Your task to perform on an android device: allow cookies in the chrome app Image 0: 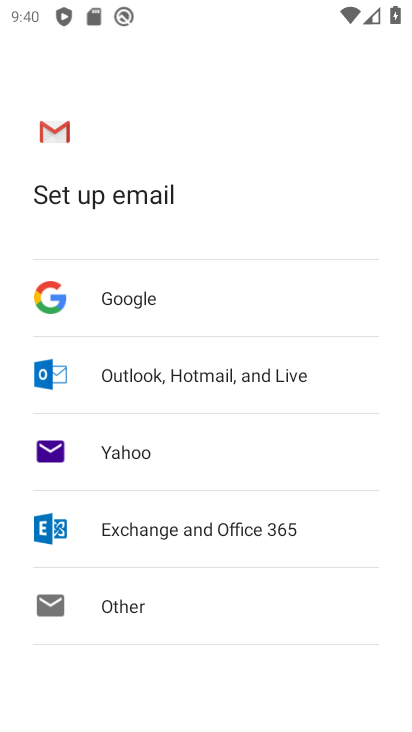
Step 0: press home button
Your task to perform on an android device: allow cookies in the chrome app Image 1: 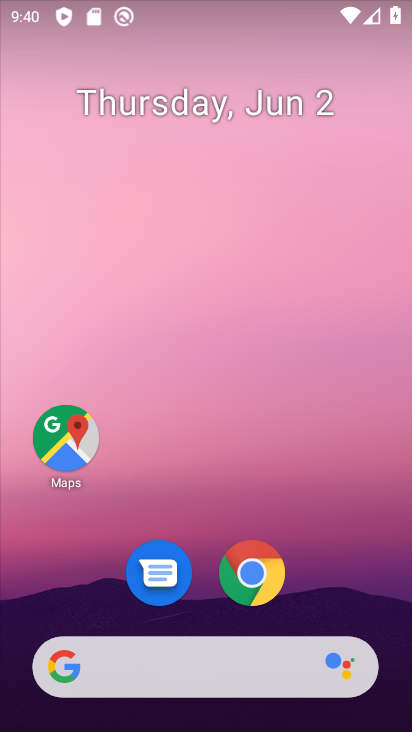
Step 1: click (252, 568)
Your task to perform on an android device: allow cookies in the chrome app Image 2: 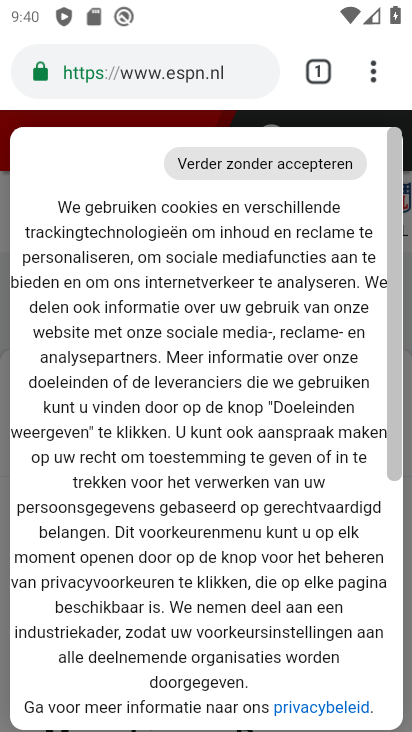
Step 2: drag from (373, 66) to (229, 574)
Your task to perform on an android device: allow cookies in the chrome app Image 3: 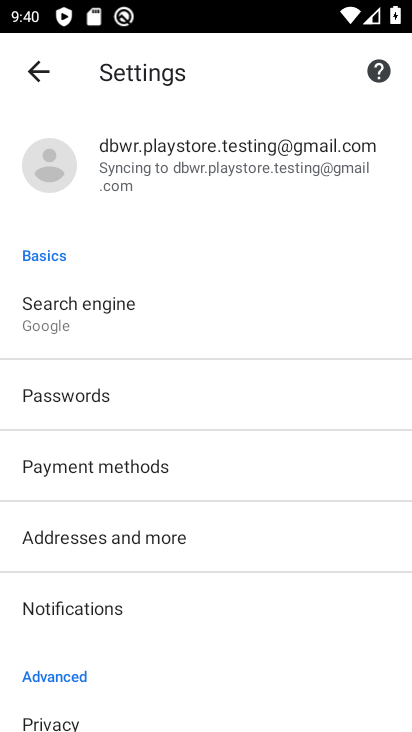
Step 3: drag from (180, 642) to (235, 221)
Your task to perform on an android device: allow cookies in the chrome app Image 4: 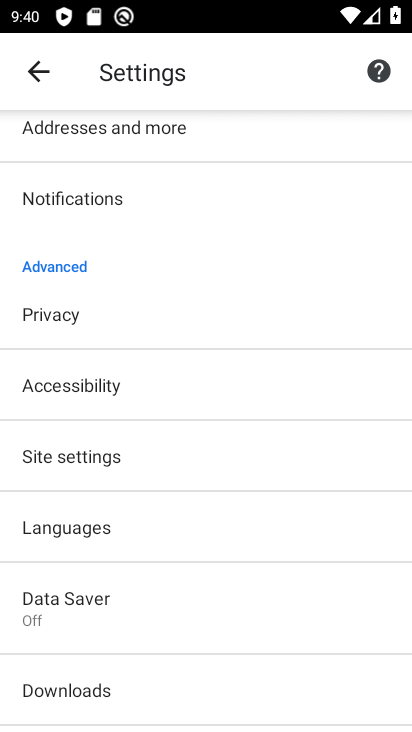
Step 4: click (118, 448)
Your task to perform on an android device: allow cookies in the chrome app Image 5: 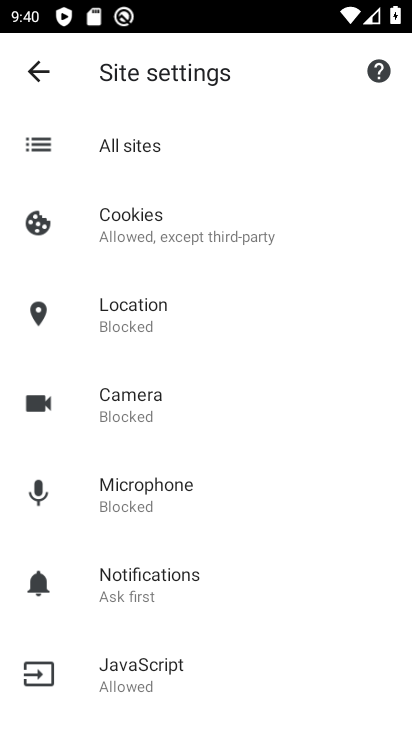
Step 5: click (179, 216)
Your task to perform on an android device: allow cookies in the chrome app Image 6: 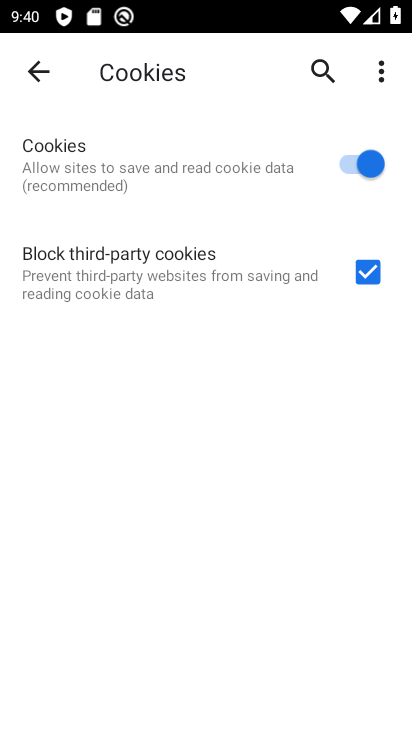
Step 6: task complete